Your task to perform on an android device: toggle sleep mode Image 0: 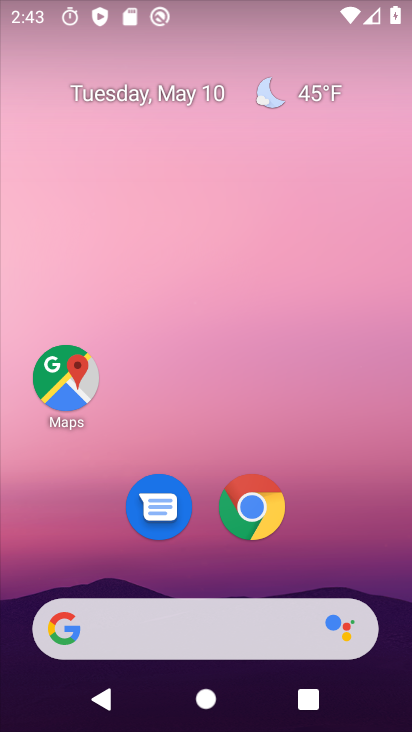
Step 0: drag from (198, 603) to (198, 159)
Your task to perform on an android device: toggle sleep mode Image 1: 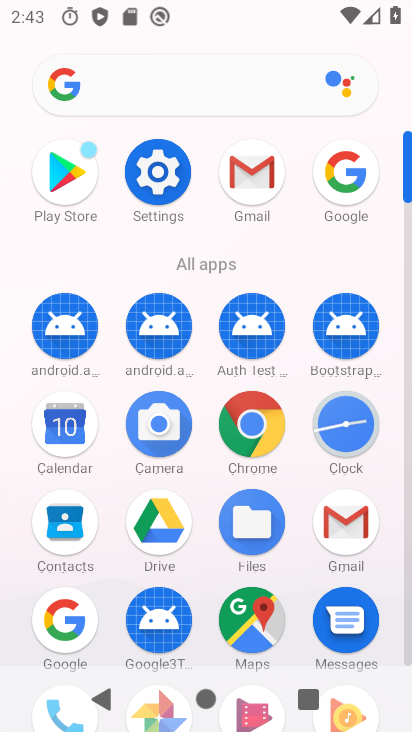
Step 1: click (158, 174)
Your task to perform on an android device: toggle sleep mode Image 2: 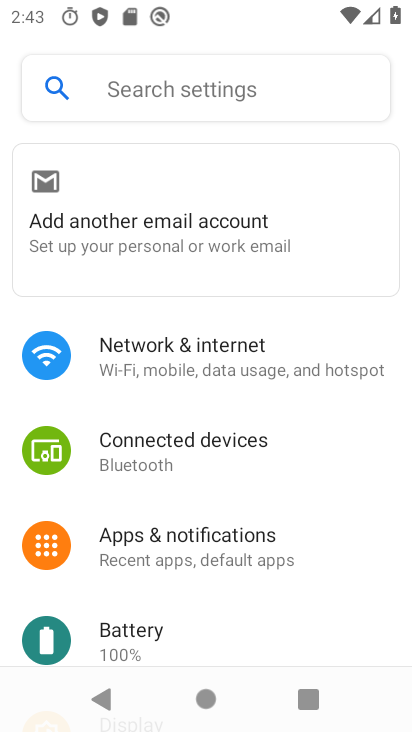
Step 2: drag from (241, 621) to (211, 303)
Your task to perform on an android device: toggle sleep mode Image 3: 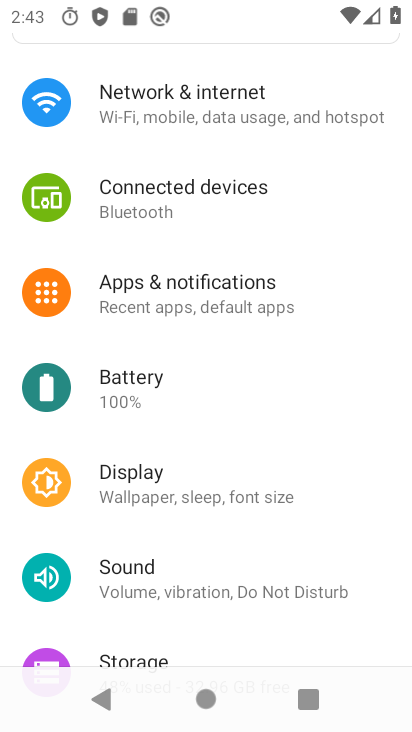
Step 3: drag from (184, 614) to (144, 307)
Your task to perform on an android device: toggle sleep mode Image 4: 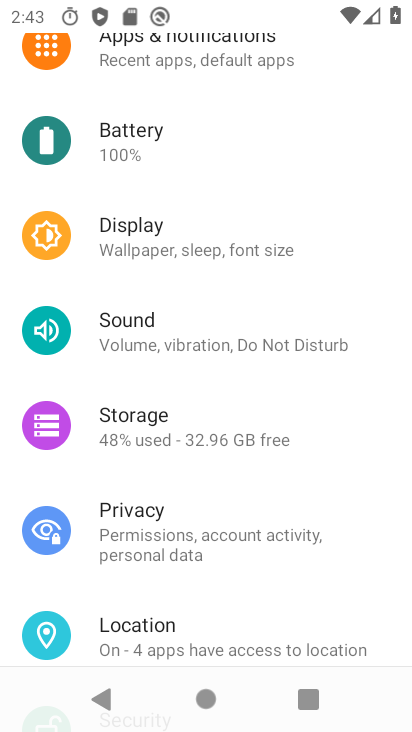
Step 4: drag from (224, 110) to (233, 465)
Your task to perform on an android device: toggle sleep mode Image 5: 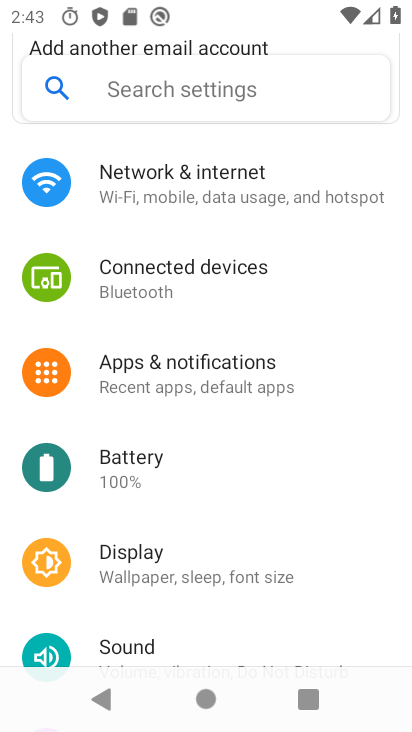
Step 5: click (181, 572)
Your task to perform on an android device: toggle sleep mode Image 6: 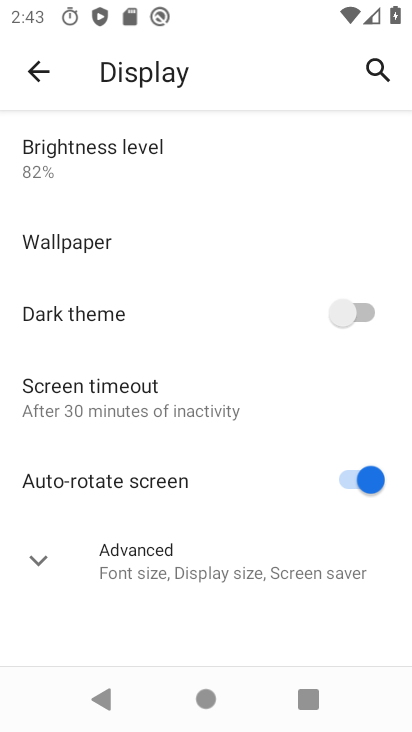
Step 6: click (117, 382)
Your task to perform on an android device: toggle sleep mode Image 7: 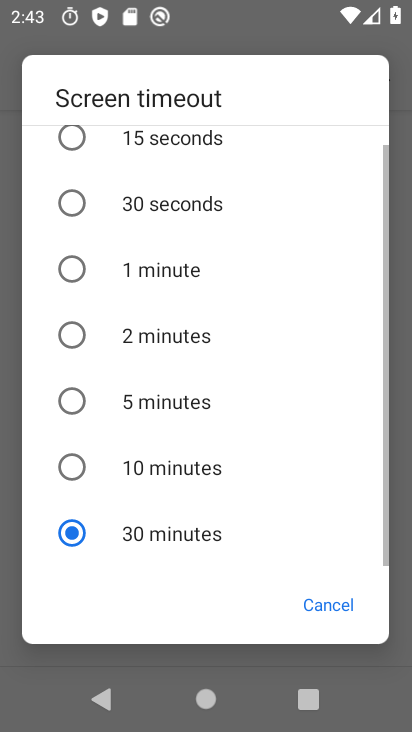
Step 7: click (149, 152)
Your task to perform on an android device: toggle sleep mode Image 8: 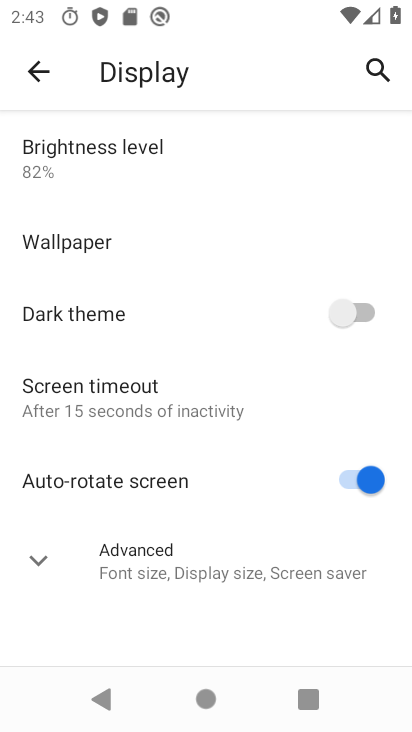
Step 8: task complete